Your task to perform on an android device: What's the weather going to be this weekend? Image 0: 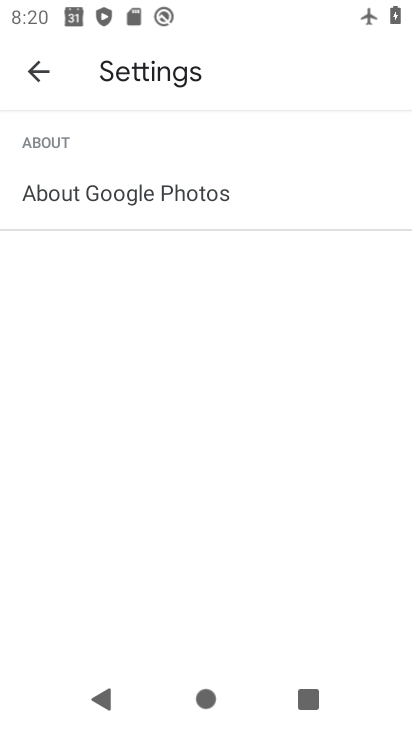
Step 0: press home button
Your task to perform on an android device: What's the weather going to be this weekend? Image 1: 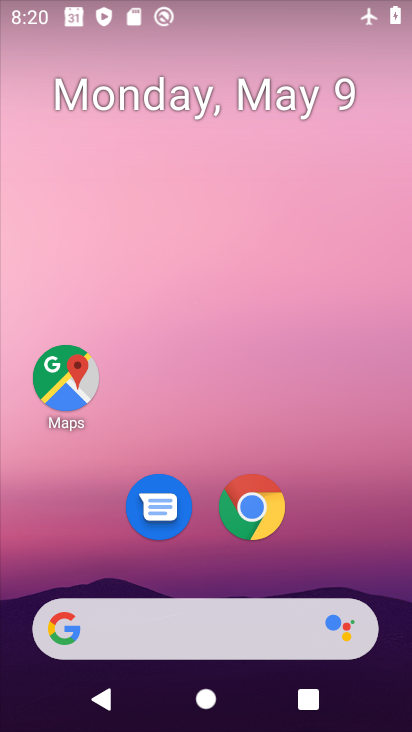
Step 1: click (216, 624)
Your task to perform on an android device: What's the weather going to be this weekend? Image 2: 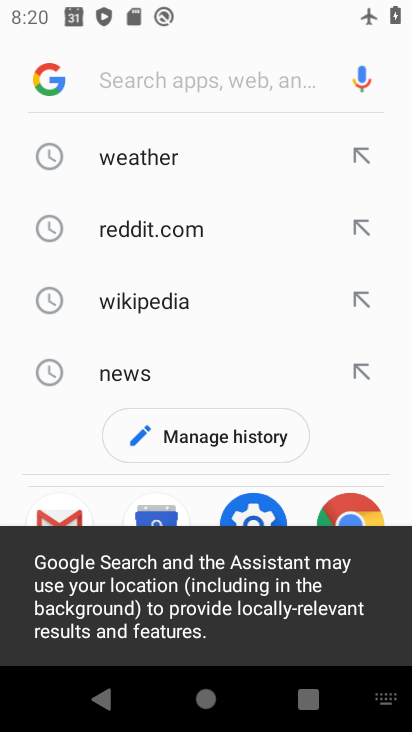
Step 2: click (131, 151)
Your task to perform on an android device: What's the weather going to be this weekend? Image 3: 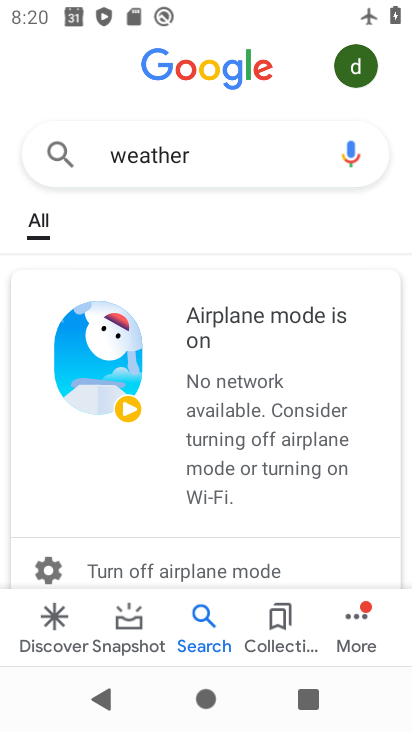
Step 3: task complete